Your task to perform on an android device: open app "Skype" (install if not already installed) Image 0: 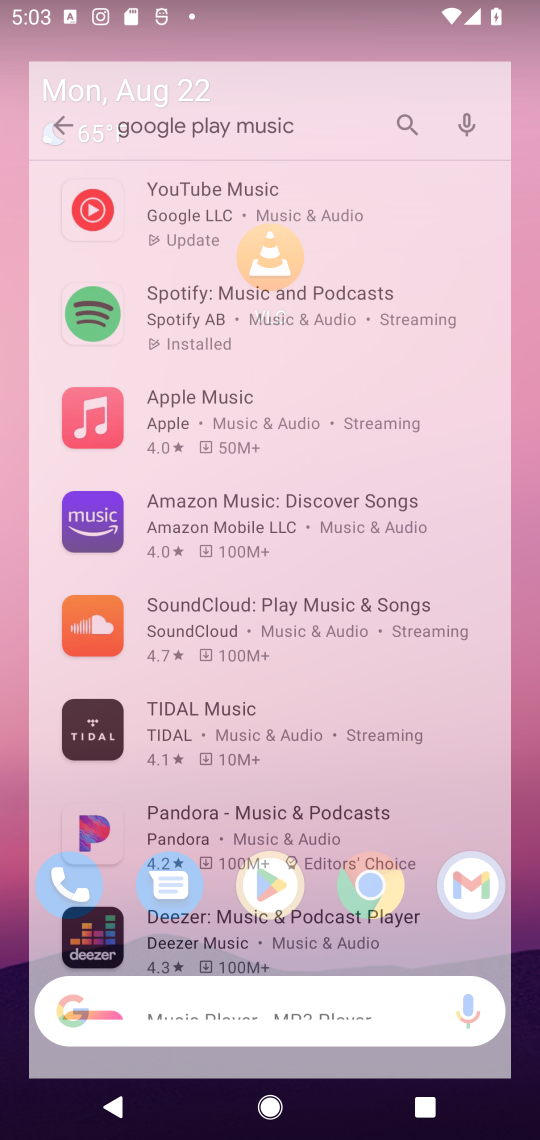
Step 0: press home button
Your task to perform on an android device: open app "Skype" (install if not already installed) Image 1: 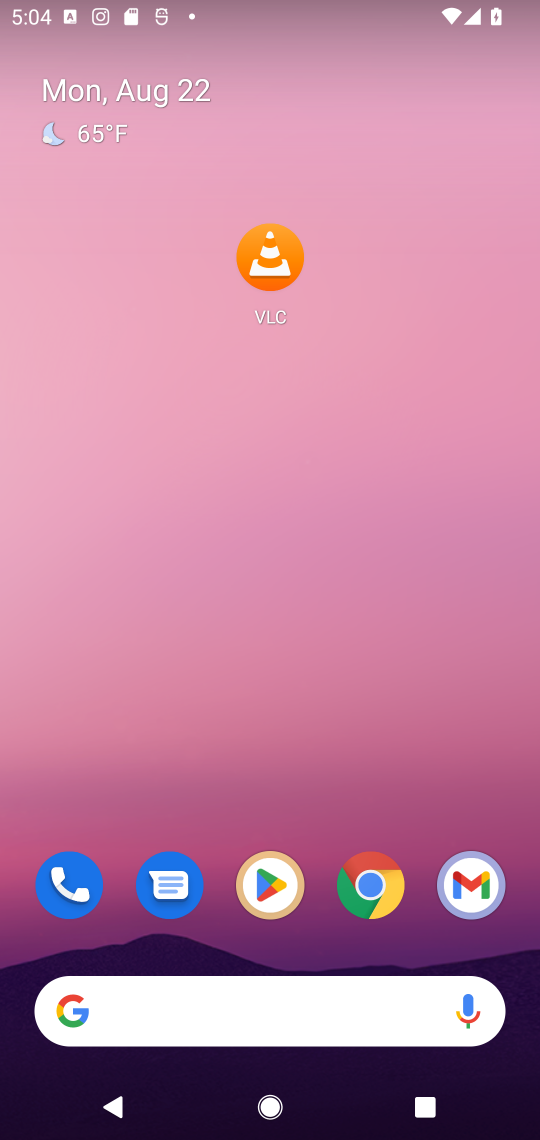
Step 1: click (274, 890)
Your task to perform on an android device: open app "Skype" (install if not already installed) Image 2: 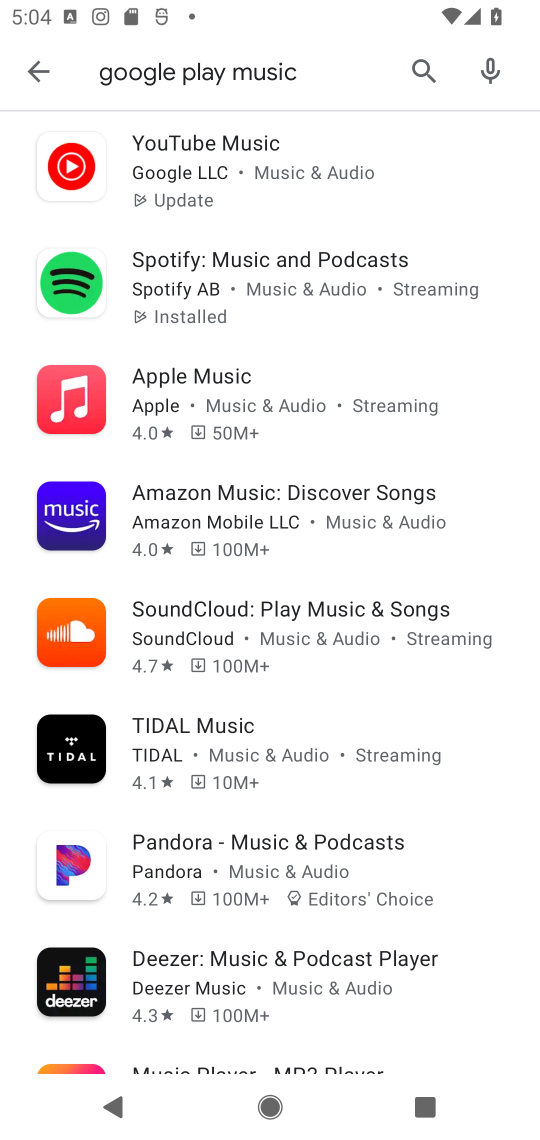
Step 2: click (415, 59)
Your task to perform on an android device: open app "Skype" (install if not already installed) Image 3: 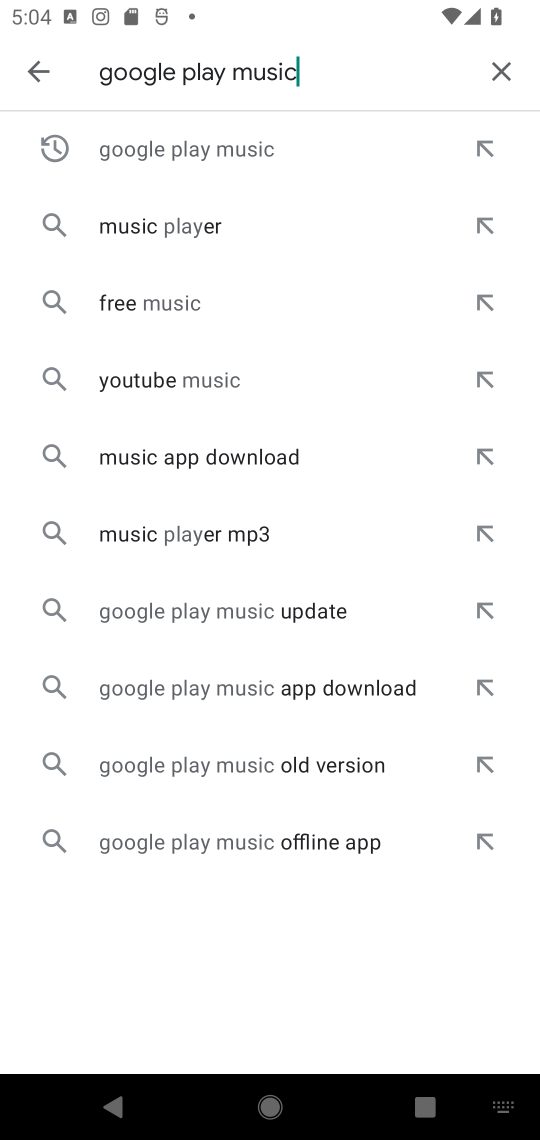
Step 3: click (490, 75)
Your task to perform on an android device: open app "Skype" (install if not already installed) Image 4: 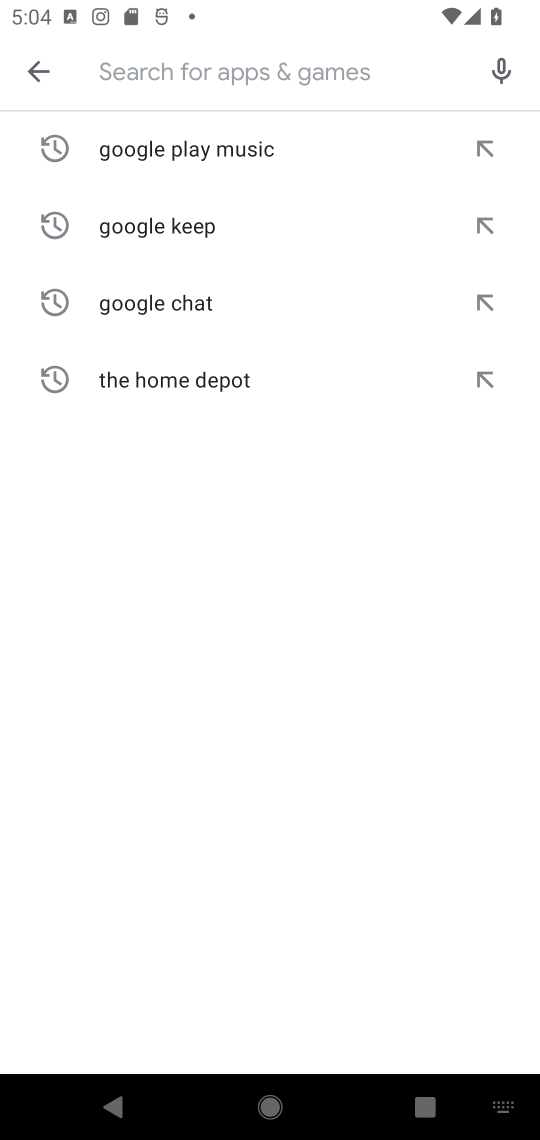
Step 4: type "Skype"
Your task to perform on an android device: open app "Skype" (install if not already installed) Image 5: 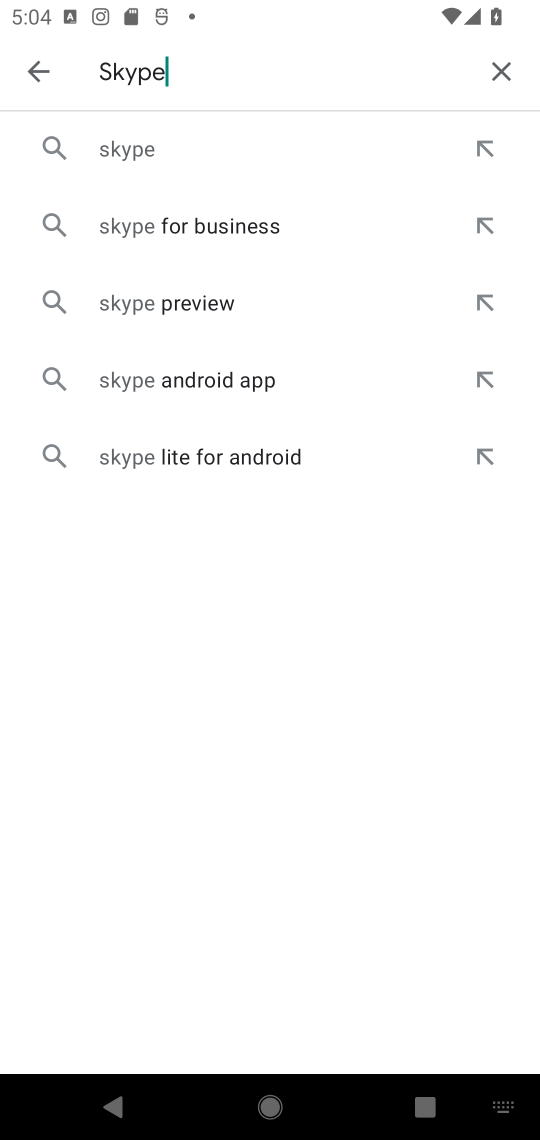
Step 5: click (162, 144)
Your task to perform on an android device: open app "Skype" (install if not already installed) Image 6: 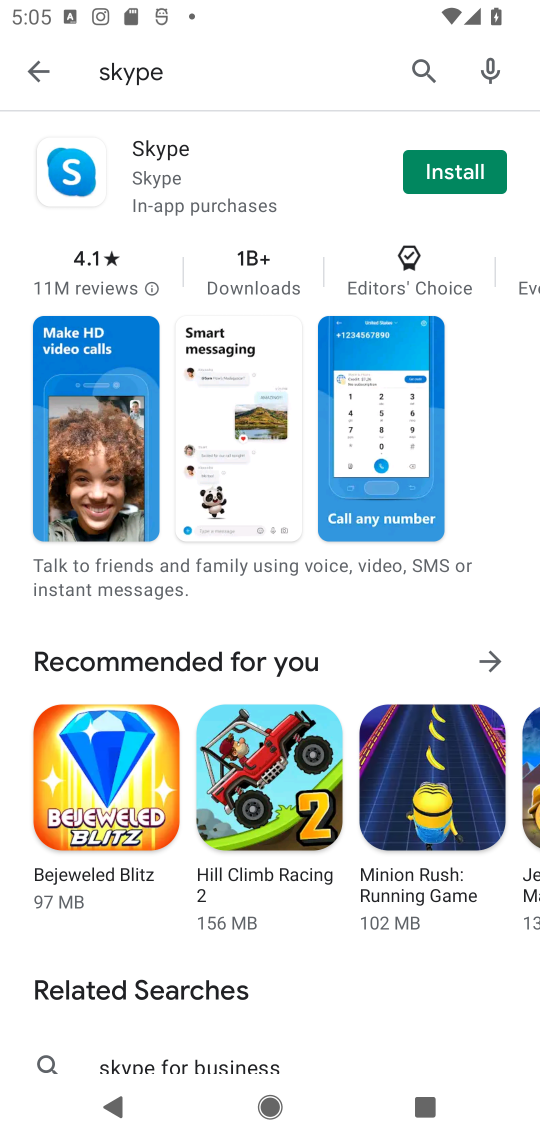
Step 6: click (453, 173)
Your task to perform on an android device: open app "Skype" (install if not already installed) Image 7: 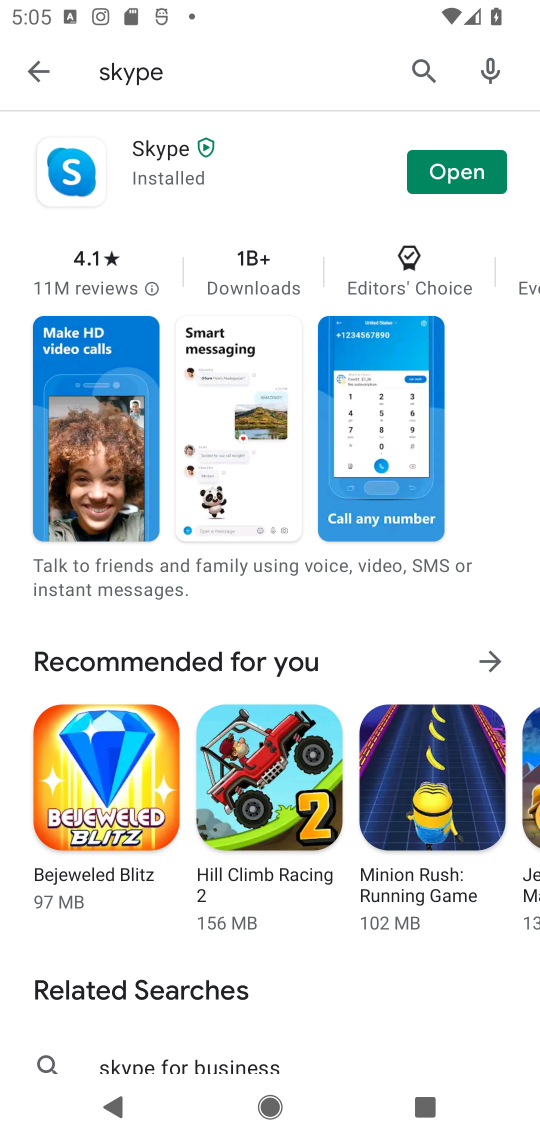
Step 7: click (449, 167)
Your task to perform on an android device: open app "Skype" (install if not already installed) Image 8: 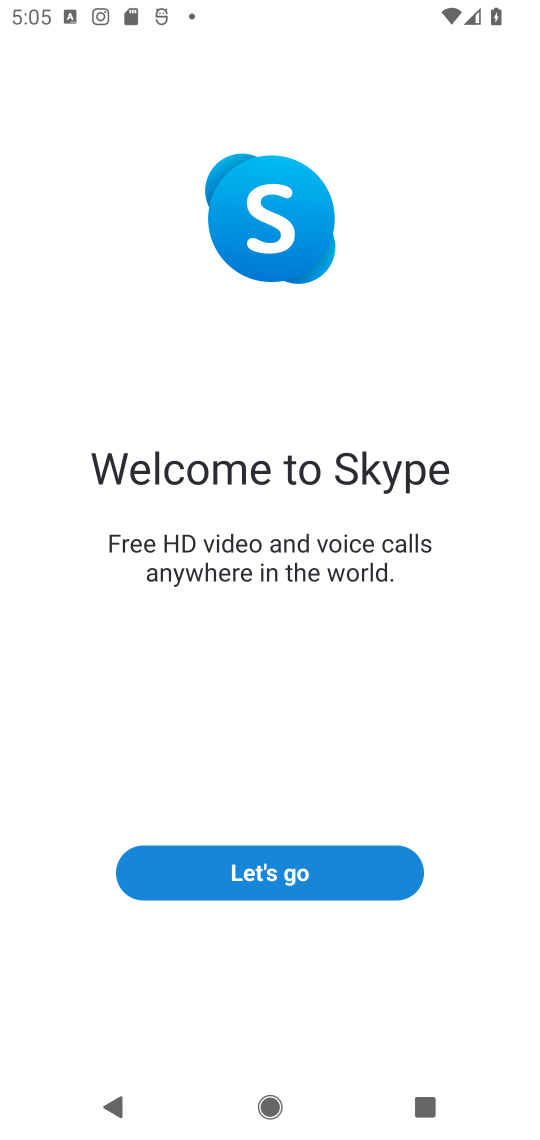
Step 8: click (276, 866)
Your task to perform on an android device: open app "Skype" (install if not already installed) Image 9: 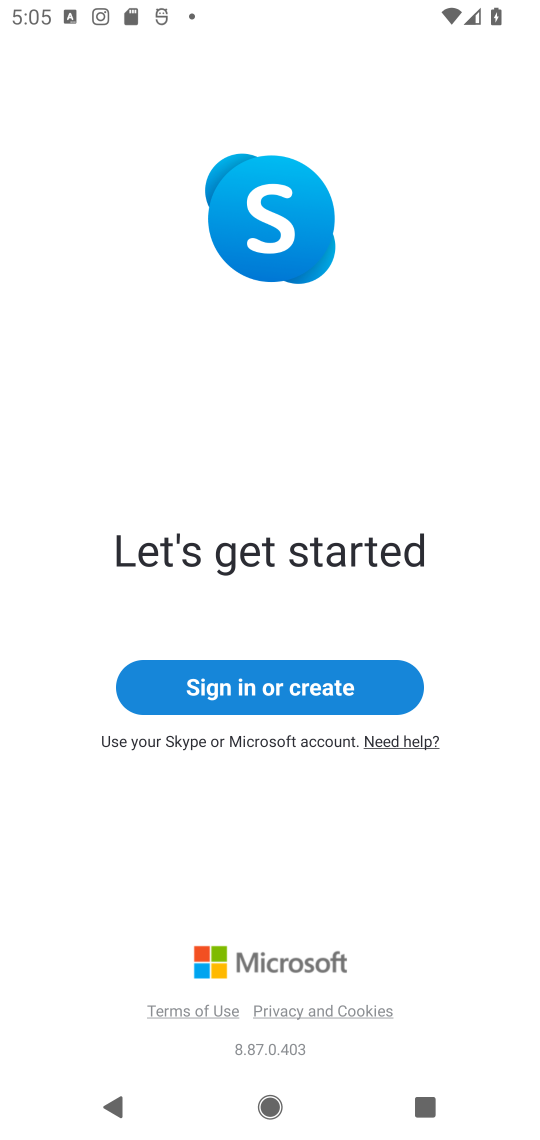
Step 9: task complete